Your task to perform on an android device: Go to Google Image 0: 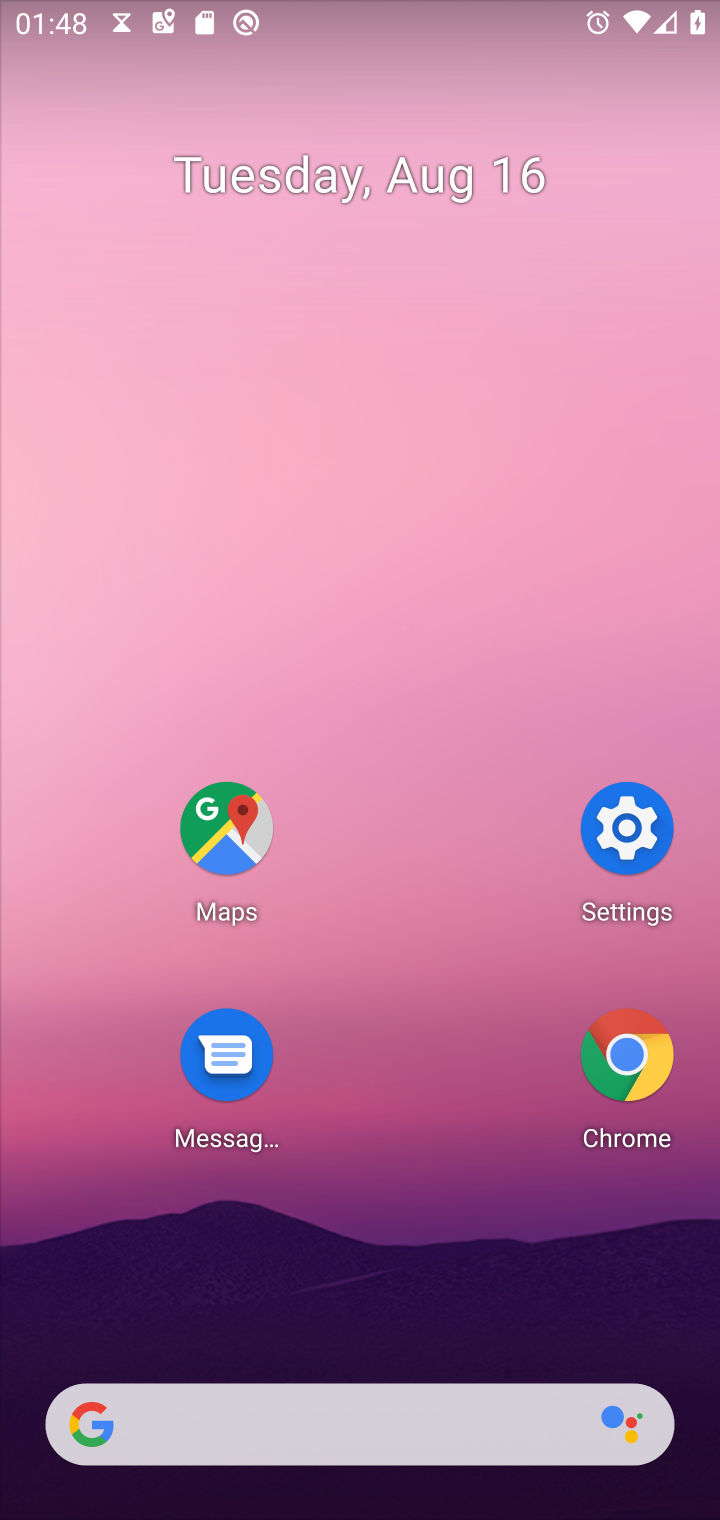
Step 0: press home button
Your task to perform on an android device: Go to Google Image 1: 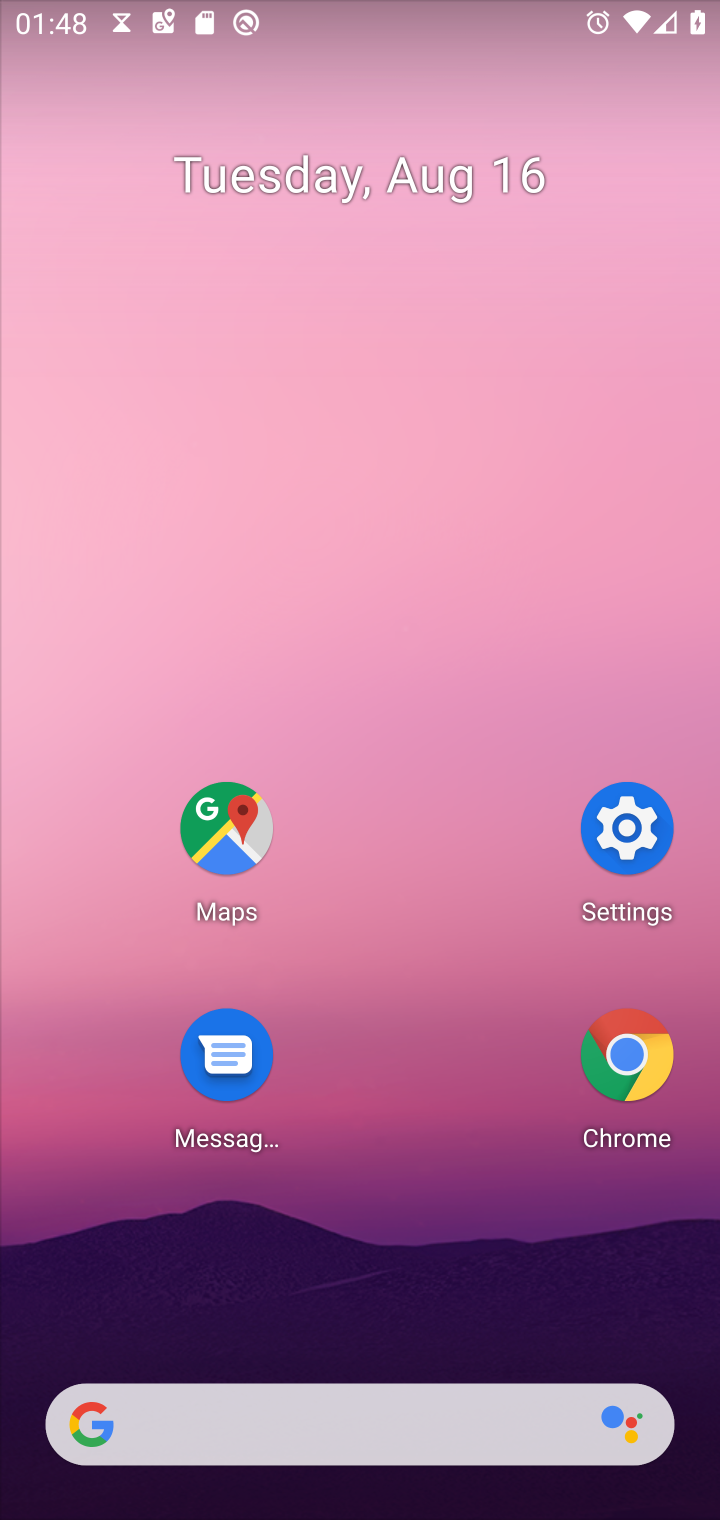
Step 1: click (651, 275)
Your task to perform on an android device: Go to Google Image 2: 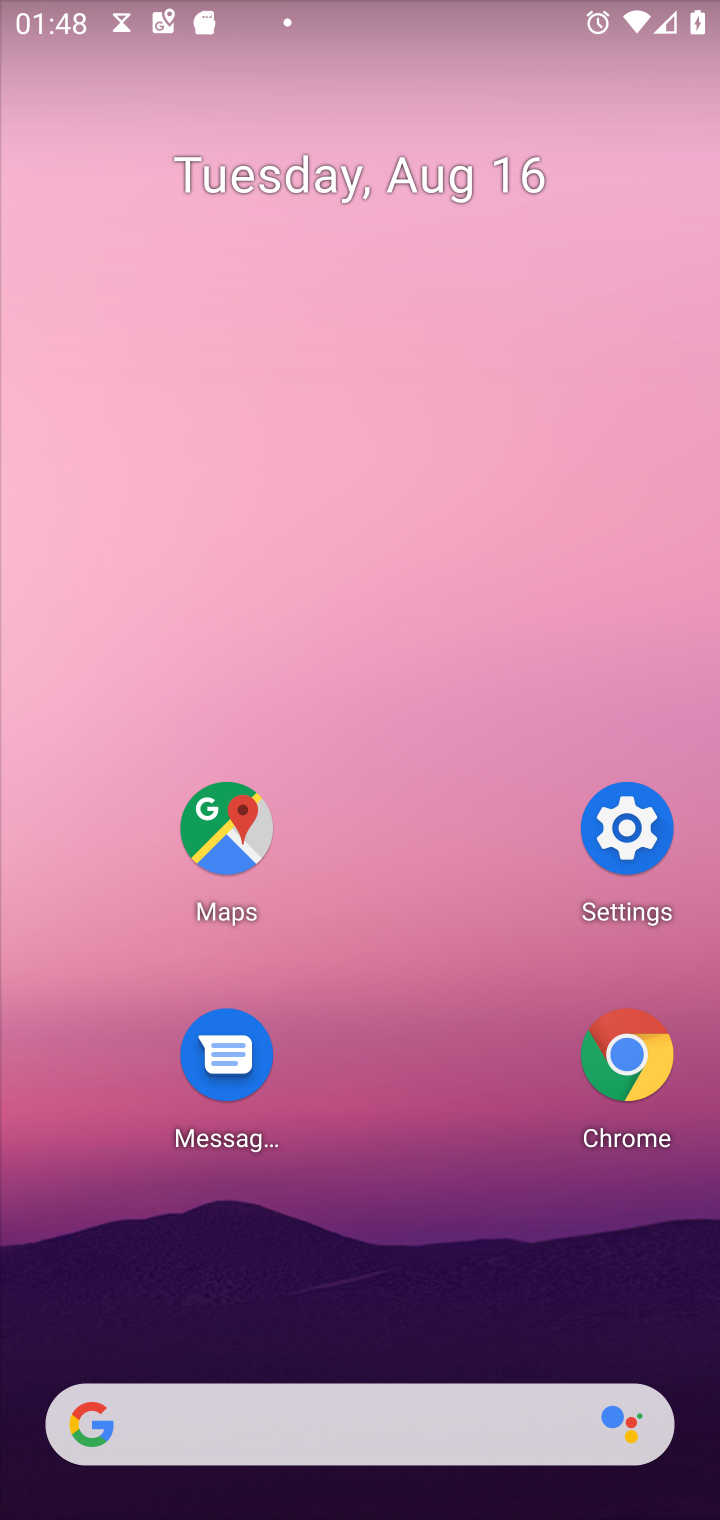
Step 2: drag from (275, 1343) to (401, 139)
Your task to perform on an android device: Go to Google Image 3: 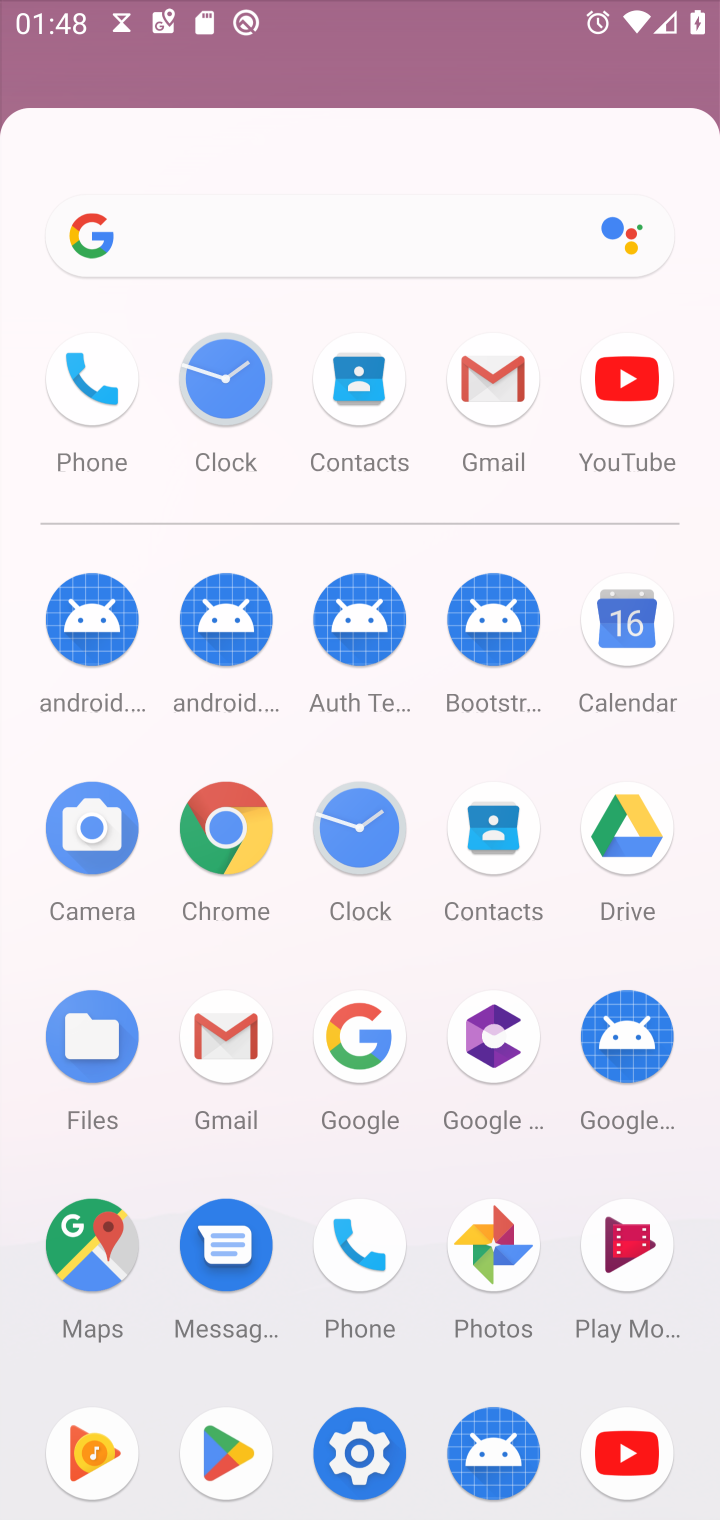
Step 3: drag from (466, 791) to (553, 33)
Your task to perform on an android device: Go to Google Image 4: 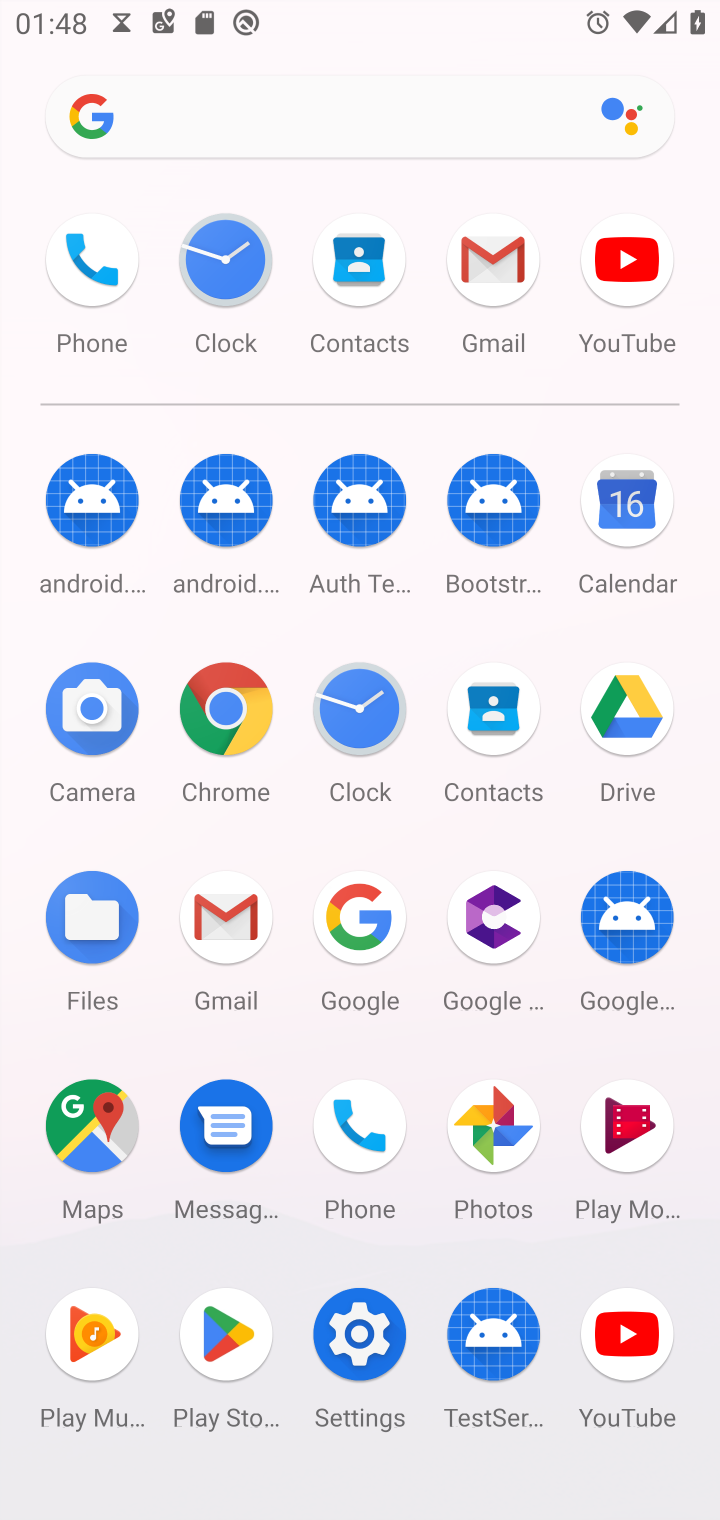
Step 4: click (349, 939)
Your task to perform on an android device: Go to Google Image 5: 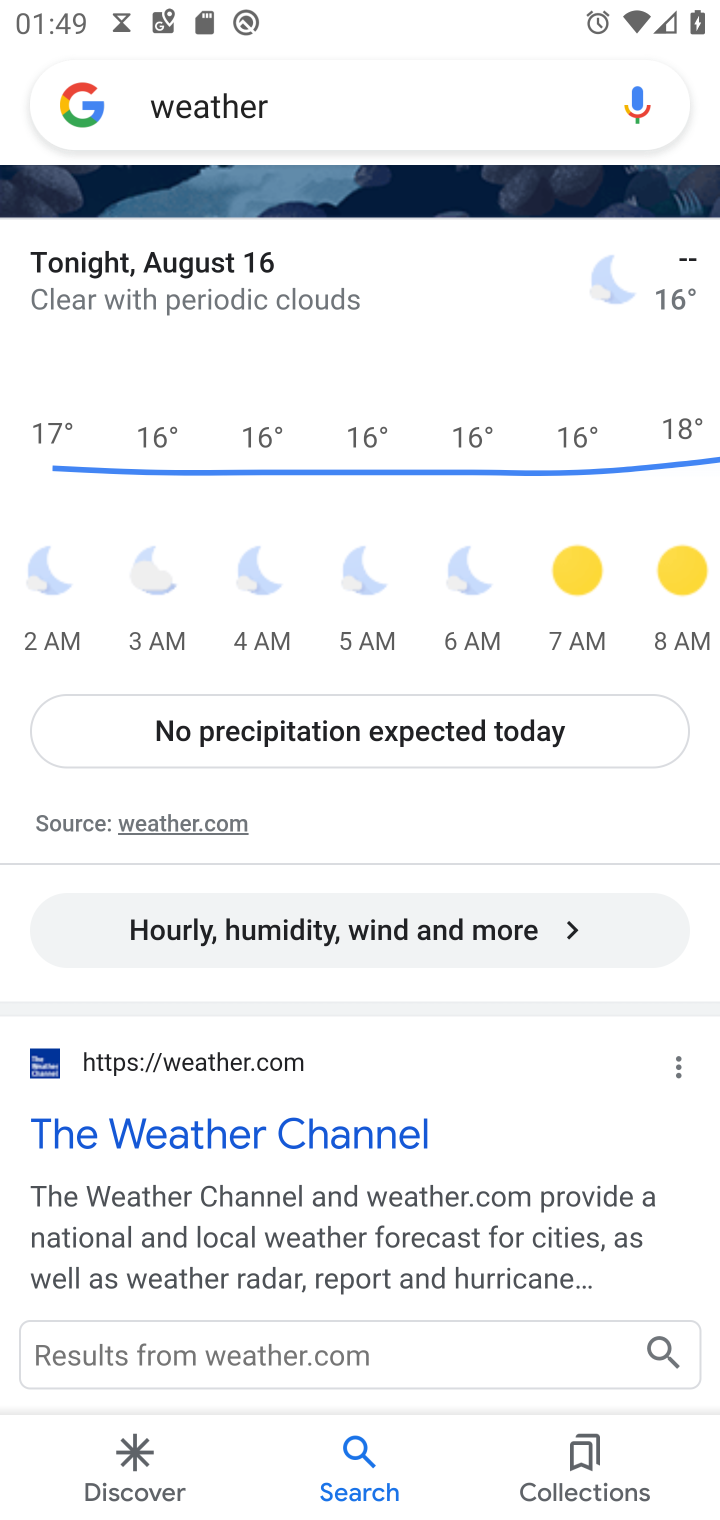
Step 5: task complete